Your task to perform on an android device: turn off sleep mode Image 0: 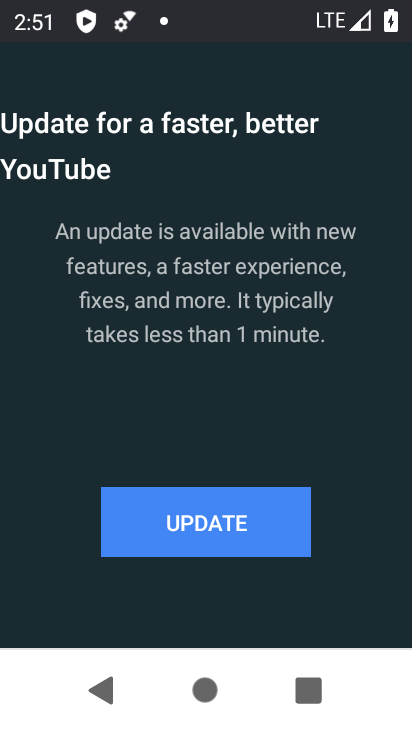
Step 0: press home button
Your task to perform on an android device: turn off sleep mode Image 1: 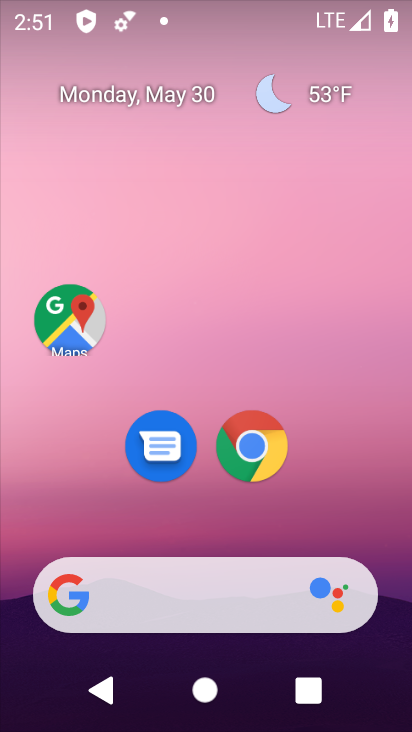
Step 1: drag from (301, 520) to (187, 87)
Your task to perform on an android device: turn off sleep mode Image 2: 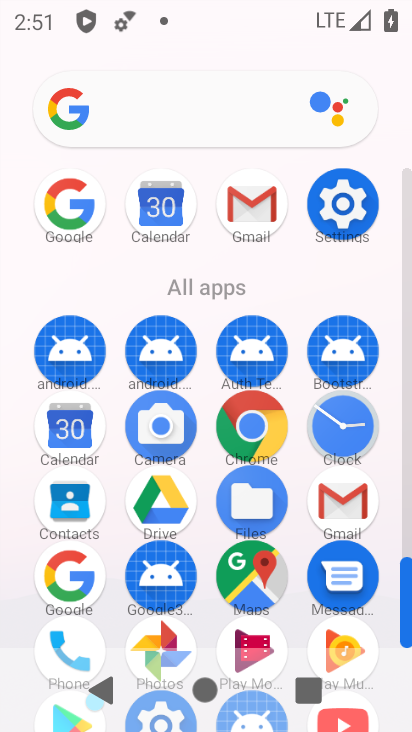
Step 2: click (344, 203)
Your task to perform on an android device: turn off sleep mode Image 3: 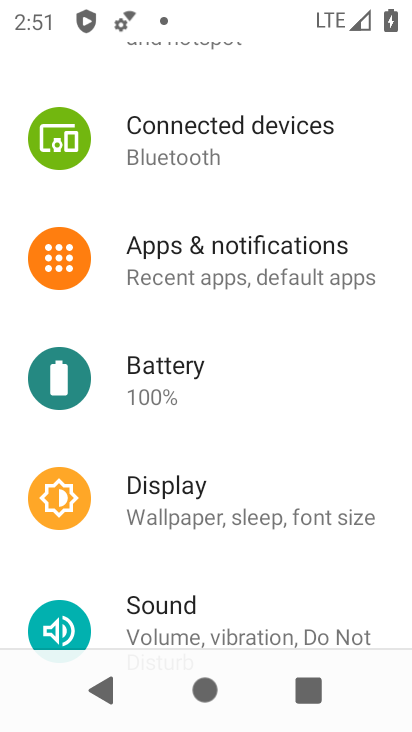
Step 3: drag from (197, 439) to (259, 343)
Your task to perform on an android device: turn off sleep mode Image 4: 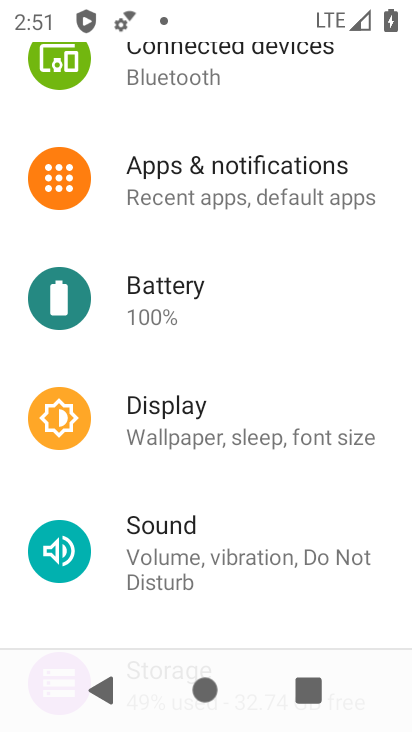
Step 4: drag from (209, 481) to (250, 398)
Your task to perform on an android device: turn off sleep mode Image 5: 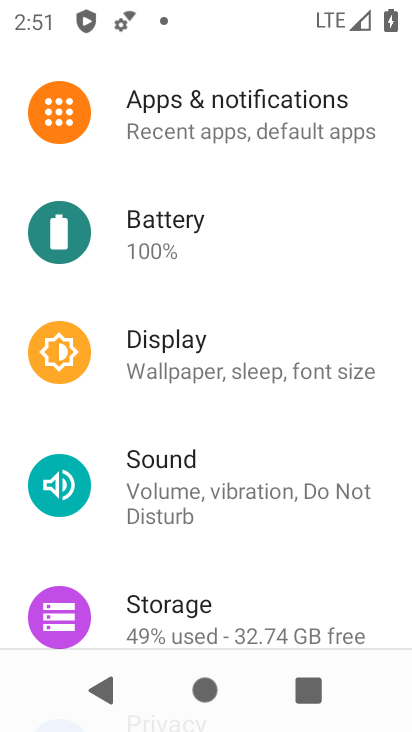
Step 5: drag from (213, 545) to (251, 449)
Your task to perform on an android device: turn off sleep mode Image 6: 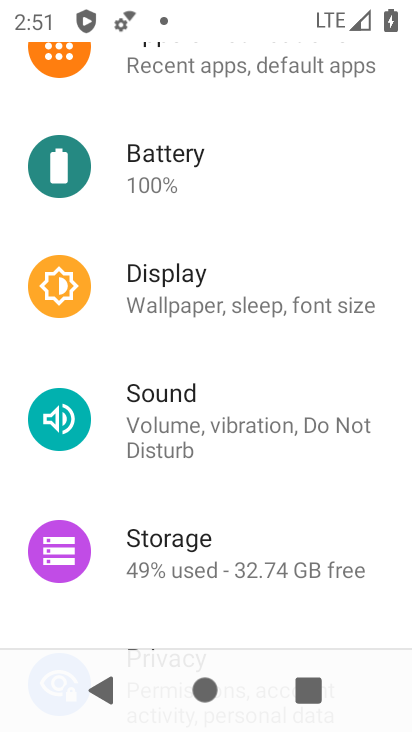
Step 6: drag from (245, 486) to (285, 415)
Your task to perform on an android device: turn off sleep mode Image 7: 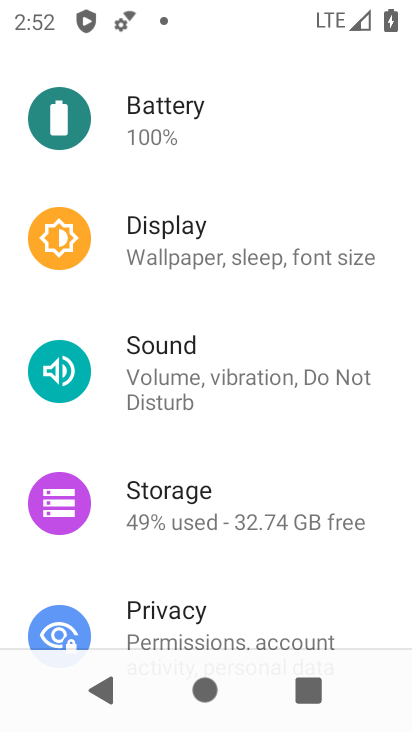
Step 7: drag from (281, 497) to (321, 397)
Your task to perform on an android device: turn off sleep mode Image 8: 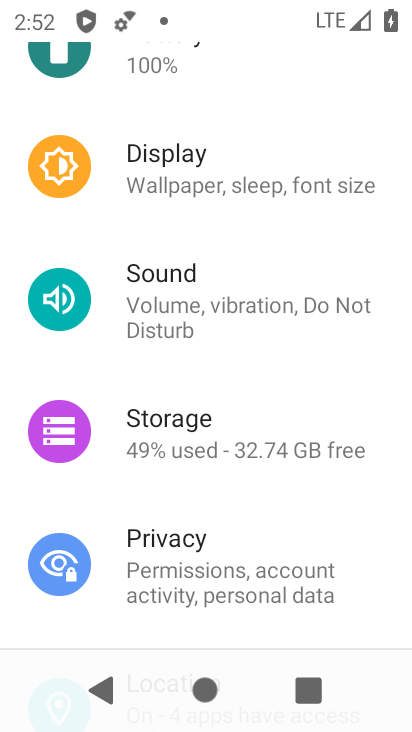
Step 8: click (287, 185)
Your task to perform on an android device: turn off sleep mode Image 9: 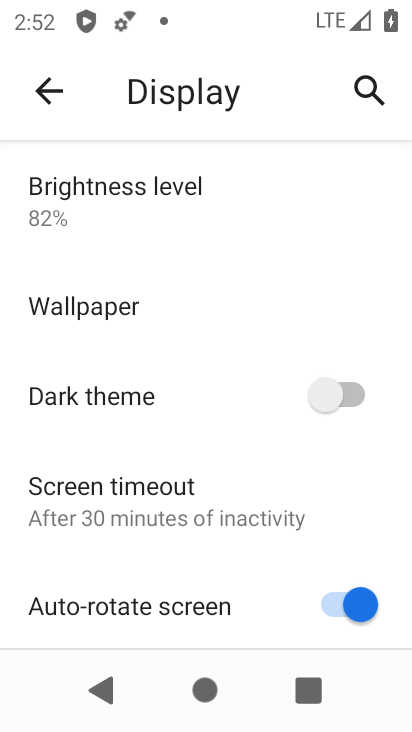
Step 9: task complete